Your task to perform on an android device: Search for vegetarian restaurants on Maps Image 0: 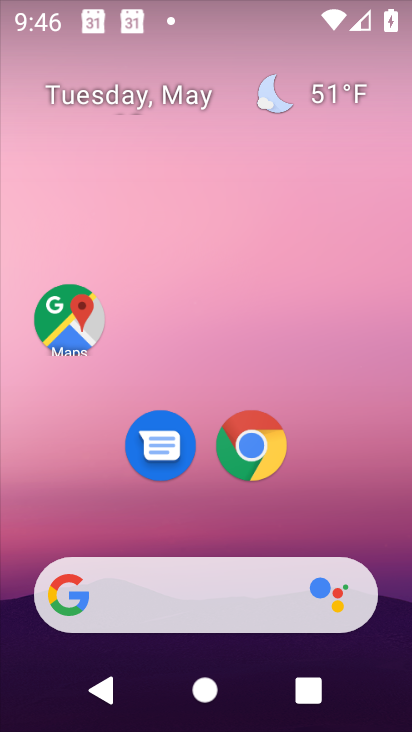
Step 0: click (63, 319)
Your task to perform on an android device: Search for vegetarian restaurants on Maps Image 1: 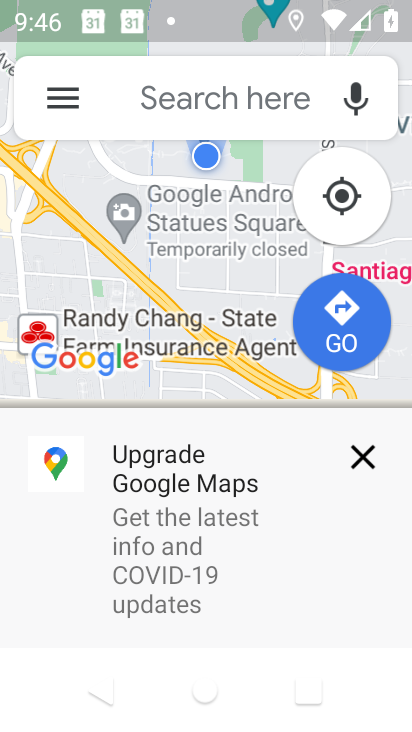
Step 1: click (211, 90)
Your task to perform on an android device: Search for vegetarian restaurants on Maps Image 2: 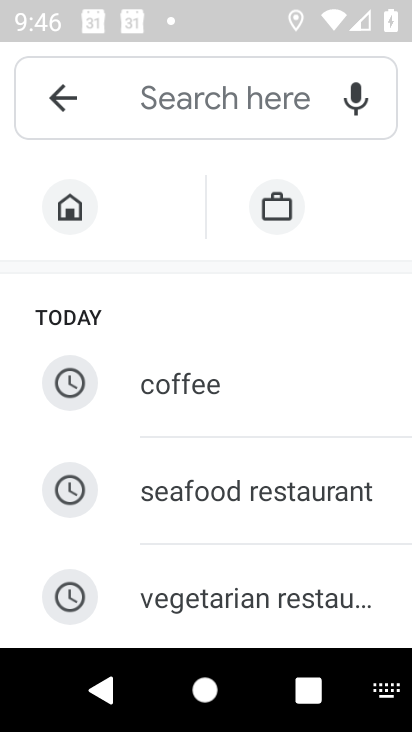
Step 2: click (260, 590)
Your task to perform on an android device: Search for vegetarian restaurants on Maps Image 3: 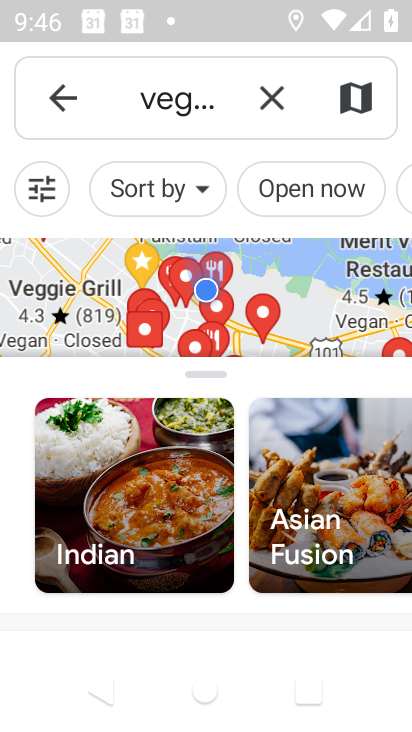
Step 3: task complete